Your task to perform on an android device: Open the Play Movies app and select the watchlist tab. Image 0: 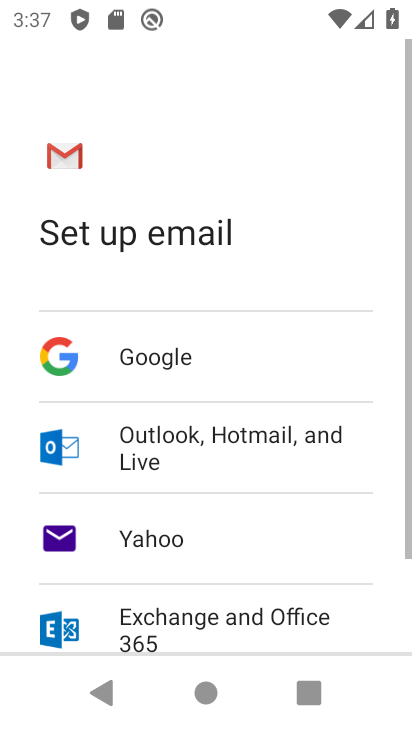
Step 0: press back button
Your task to perform on an android device: Open the Play Movies app and select the watchlist tab. Image 1: 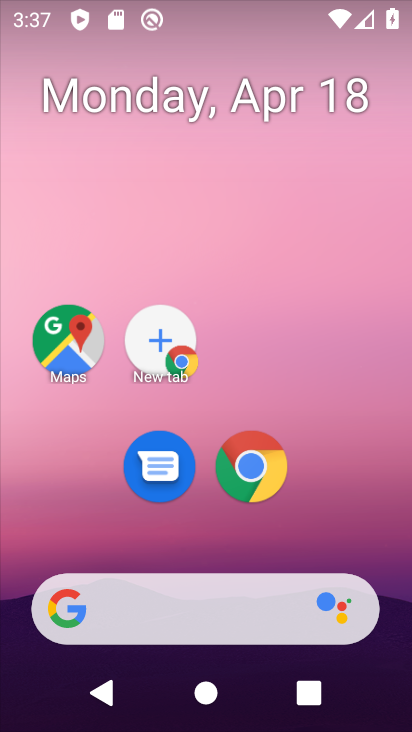
Step 1: drag from (380, 572) to (311, 33)
Your task to perform on an android device: Open the Play Movies app and select the watchlist tab. Image 2: 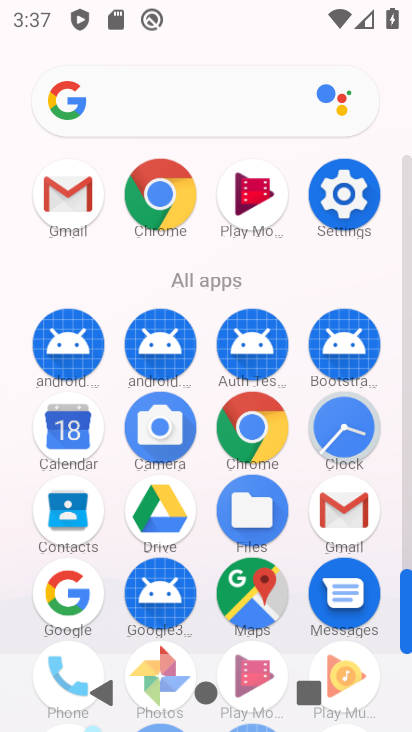
Step 2: drag from (19, 505) to (25, 230)
Your task to perform on an android device: Open the Play Movies app and select the watchlist tab. Image 3: 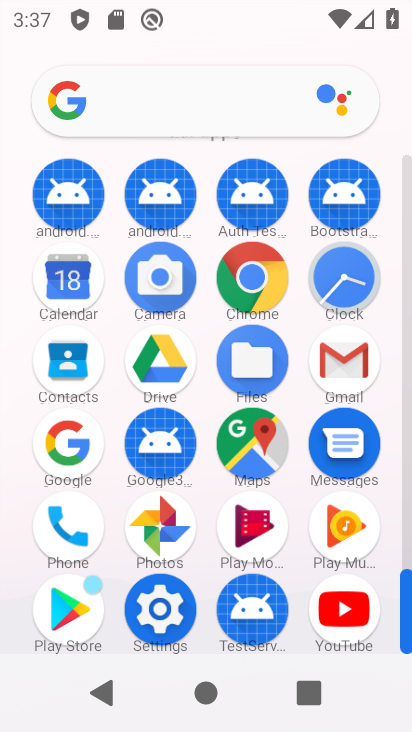
Step 3: click (243, 525)
Your task to perform on an android device: Open the Play Movies app and select the watchlist tab. Image 4: 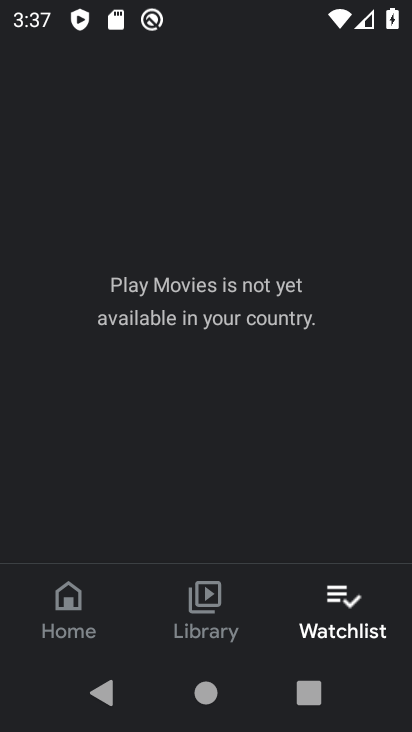
Step 4: task complete